Your task to perform on an android device: Open sound settings Image 0: 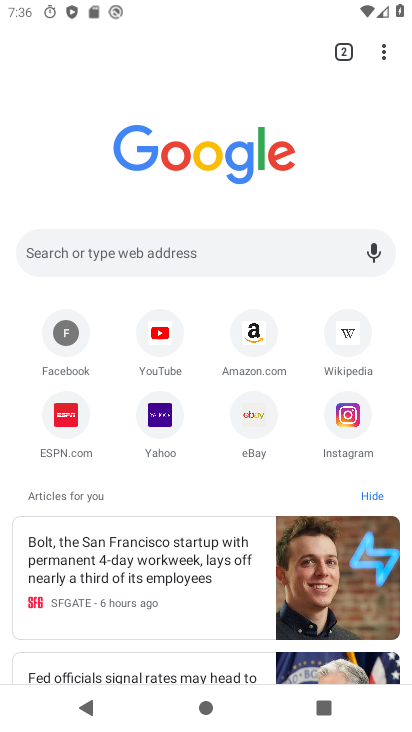
Step 0: press home button
Your task to perform on an android device: Open sound settings Image 1: 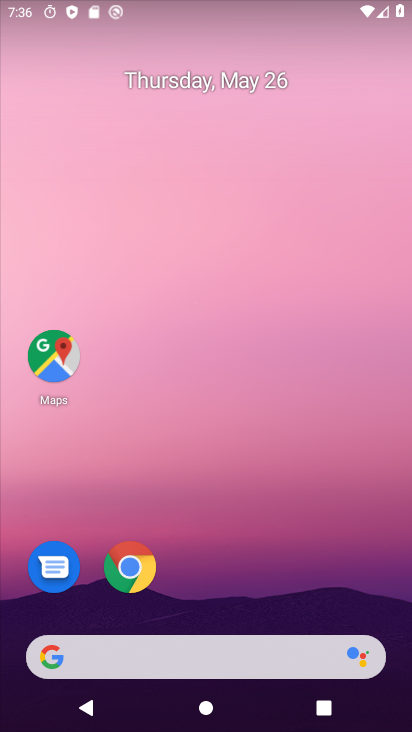
Step 1: drag from (154, 651) to (320, 49)
Your task to perform on an android device: Open sound settings Image 2: 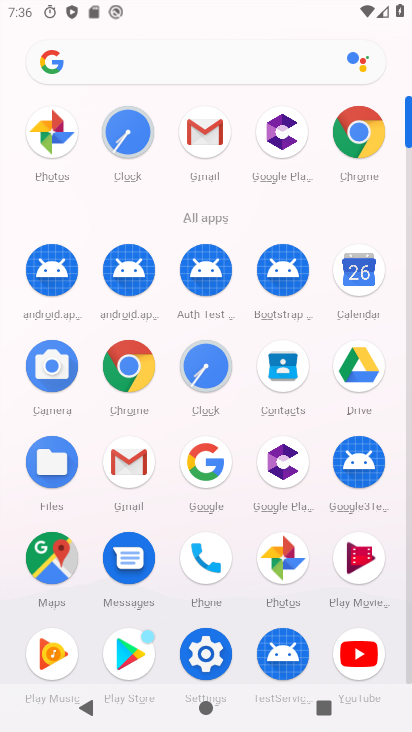
Step 2: click (207, 654)
Your task to perform on an android device: Open sound settings Image 3: 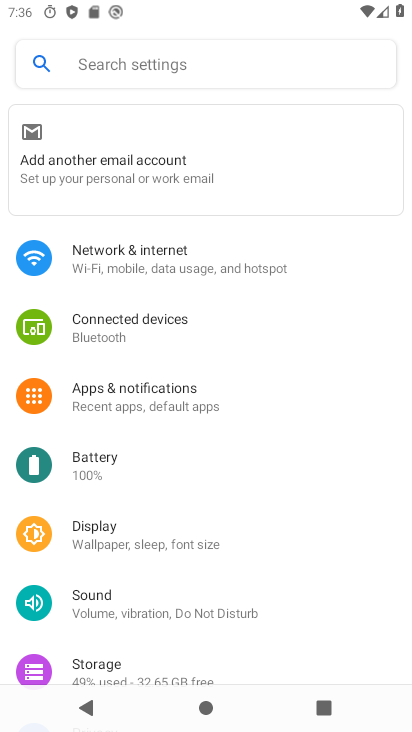
Step 3: click (117, 597)
Your task to perform on an android device: Open sound settings Image 4: 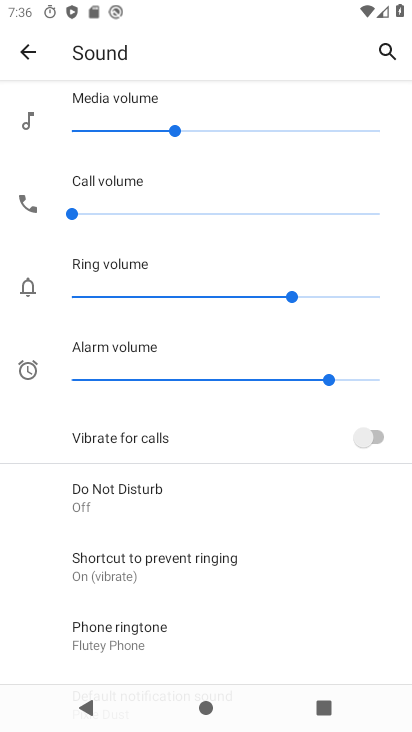
Step 4: task complete